Your task to perform on an android device: Go to wifi settings Image 0: 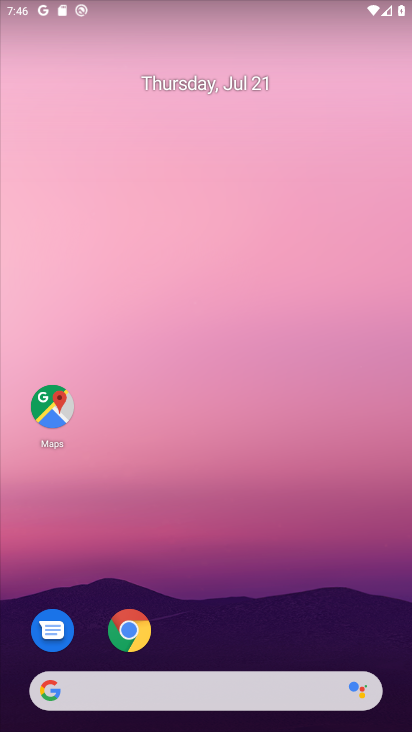
Step 0: drag from (201, 670) to (157, 29)
Your task to perform on an android device: Go to wifi settings Image 1: 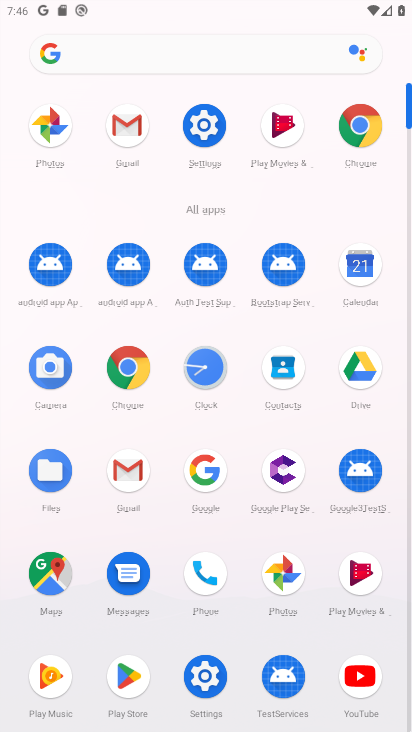
Step 1: click (209, 668)
Your task to perform on an android device: Go to wifi settings Image 2: 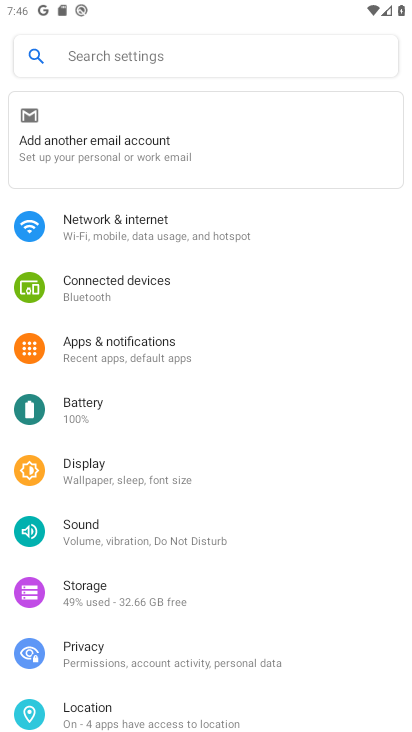
Step 2: click (147, 216)
Your task to perform on an android device: Go to wifi settings Image 3: 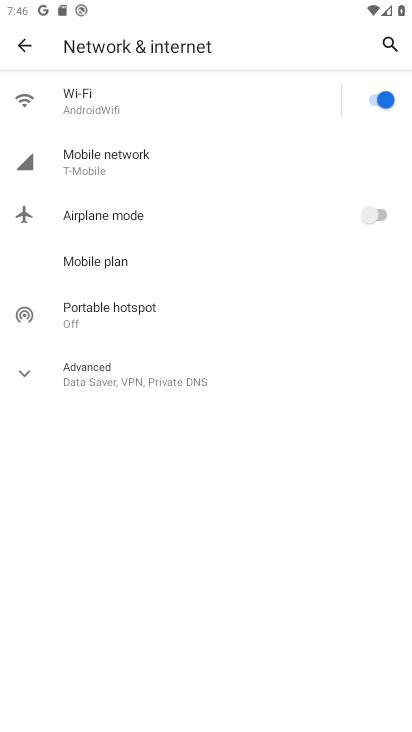
Step 3: click (87, 103)
Your task to perform on an android device: Go to wifi settings Image 4: 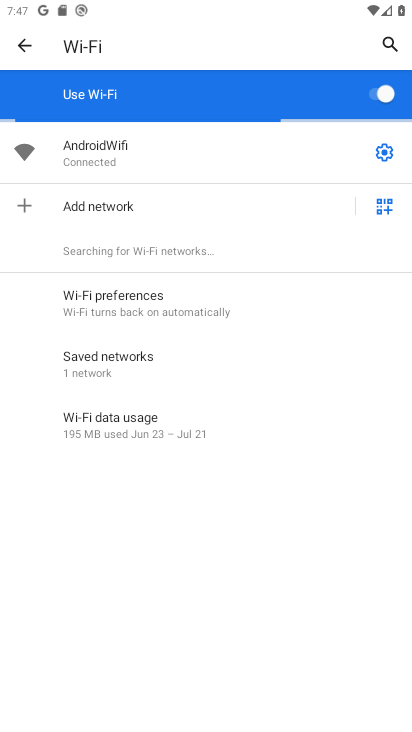
Step 4: task complete